Your task to perform on an android device: What's the weather? Image 0: 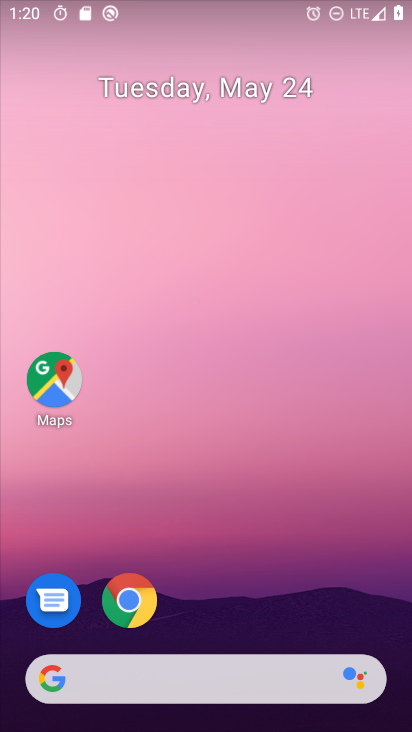
Step 0: drag from (259, 577) to (260, 184)
Your task to perform on an android device: What's the weather? Image 1: 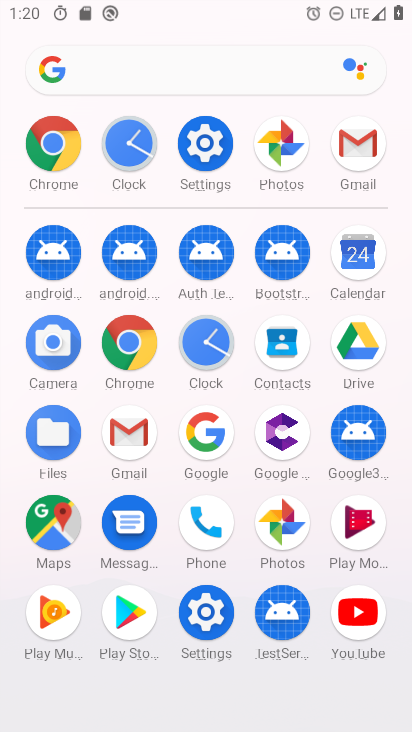
Step 1: click (125, 341)
Your task to perform on an android device: What's the weather? Image 2: 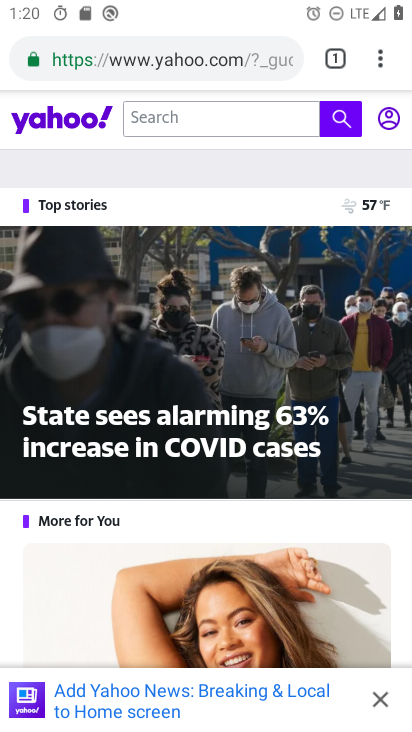
Step 2: click (218, 68)
Your task to perform on an android device: What's the weather? Image 3: 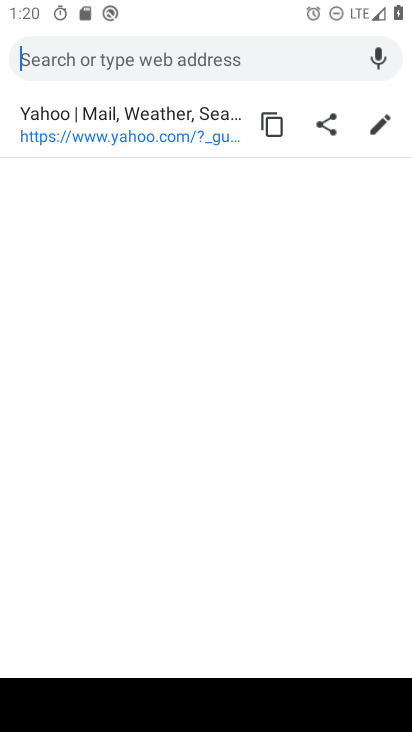
Step 3: type "weather"
Your task to perform on an android device: What's the weather? Image 4: 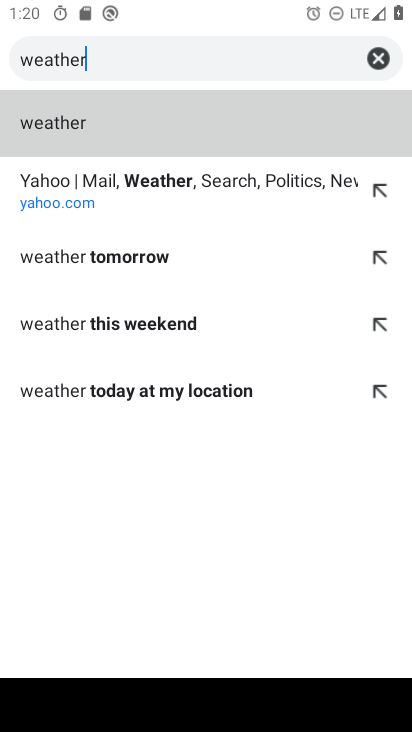
Step 4: click (57, 120)
Your task to perform on an android device: What's the weather? Image 5: 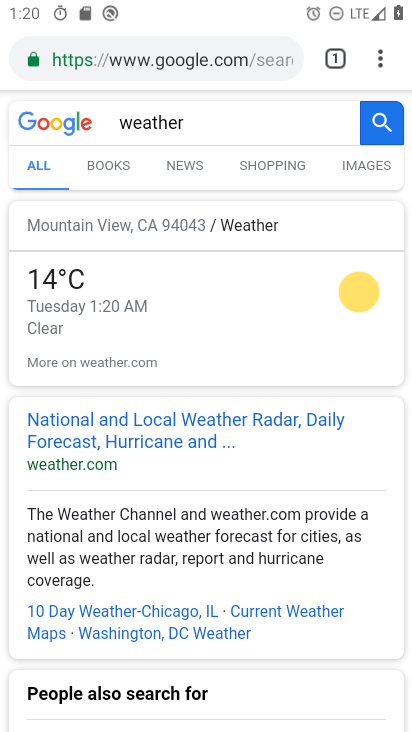
Step 5: task complete